Your task to perform on an android device: empty trash in the gmail app Image 0: 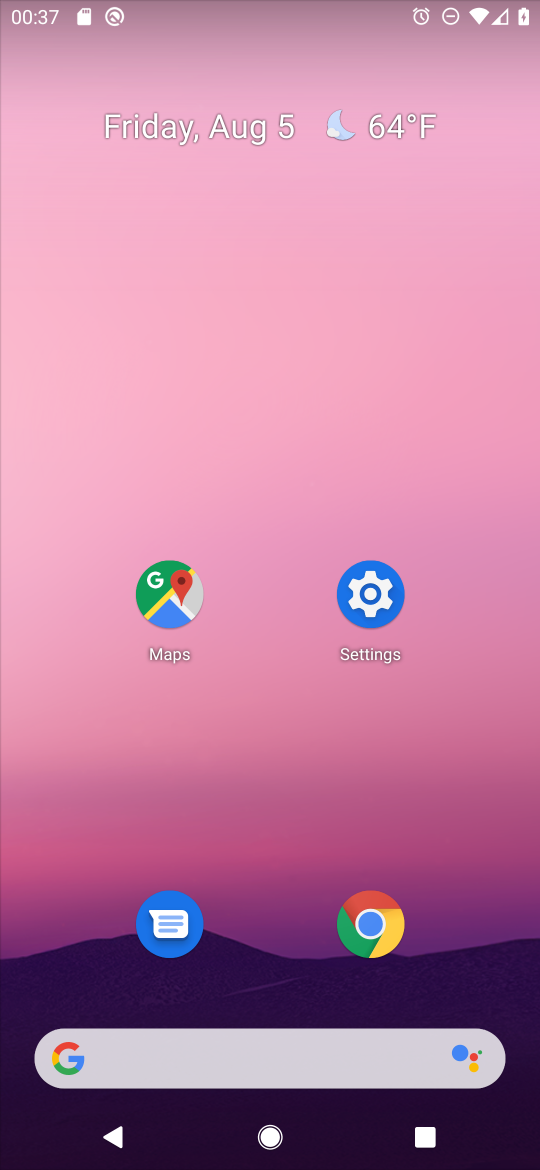
Step 0: press home button
Your task to perform on an android device: empty trash in the gmail app Image 1: 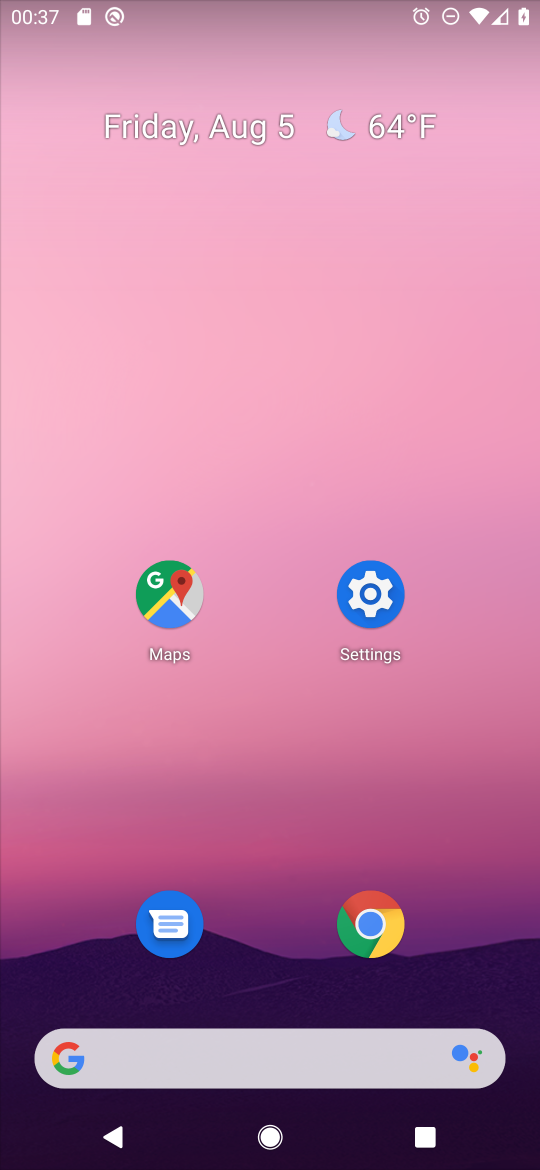
Step 1: drag from (349, 958) to (506, 45)
Your task to perform on an android device: empty trash in the gmail app Image 2: 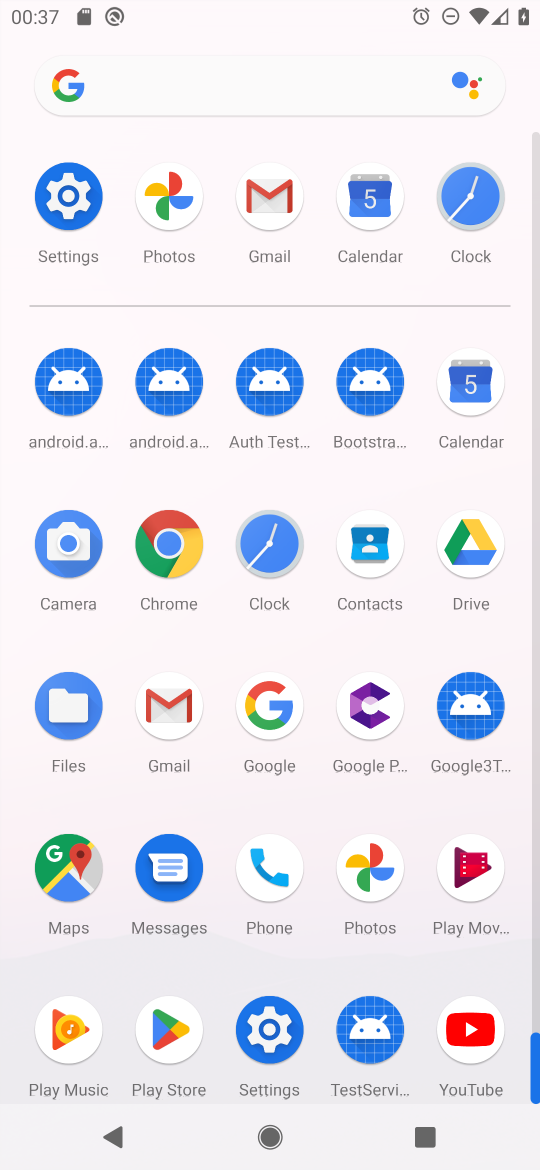
Step 2: click (172, 716)
Your task to perform on an android device: empty trash in the gmail app Image 3: 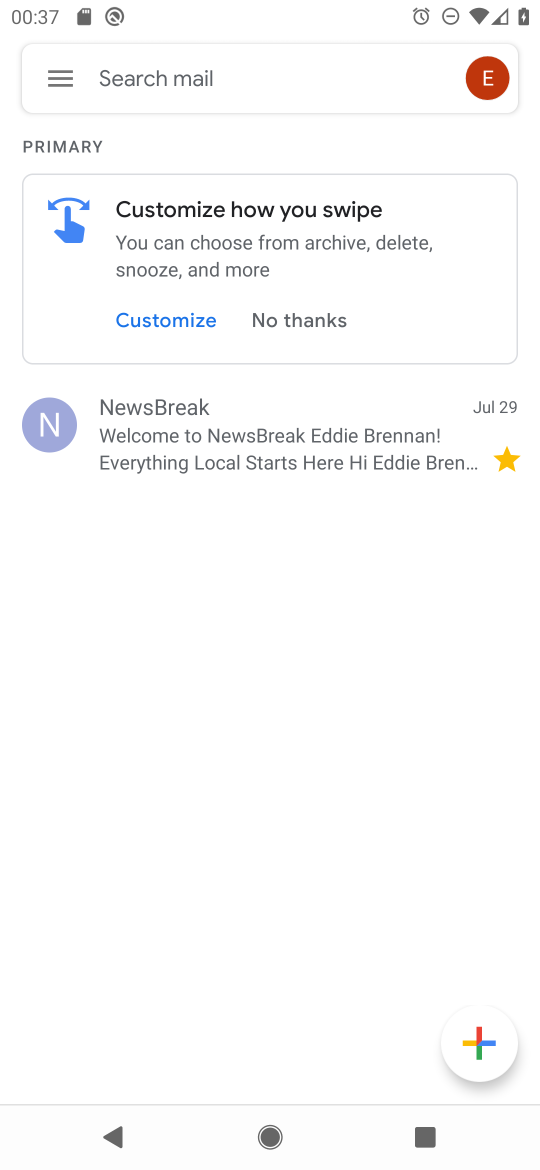
Step 3: click (65, 68)
Your task to perform on an android device: empty trash in the gmail app Image 4: 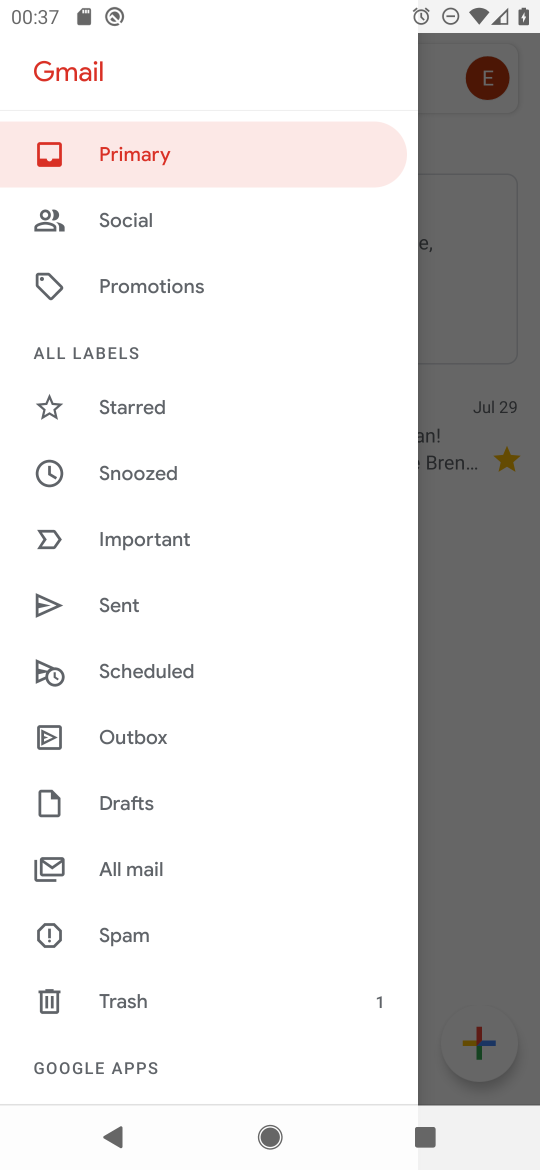
Step 4: click (120, 1004)
Your task to perform on an android device: empty trash in the gmail app Image 5: 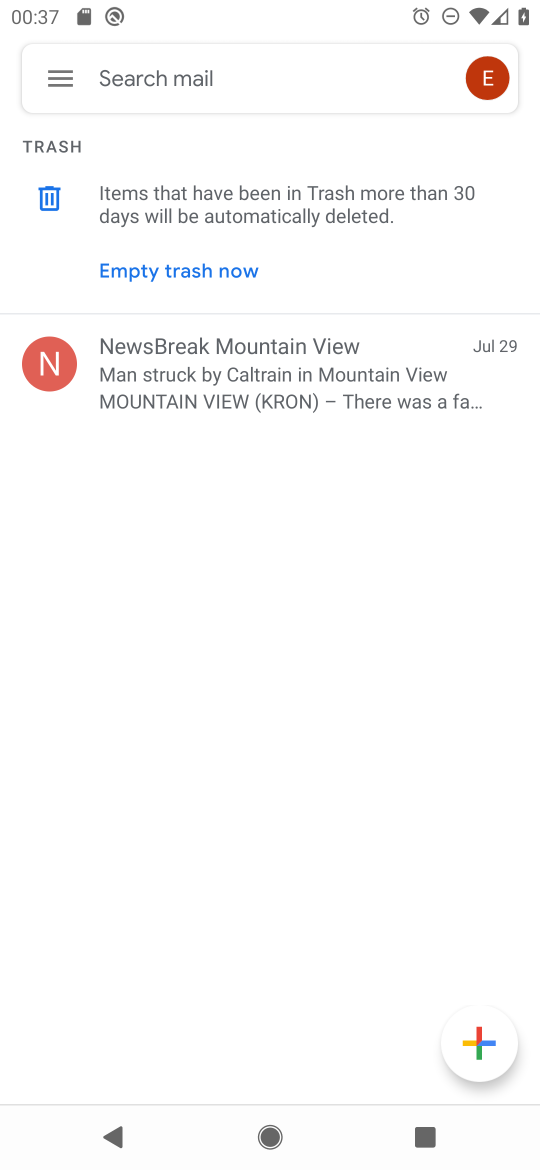
Step 5: click (169, 271)
Your task to perform on an android device: empty trash in the gmail app Image 6: 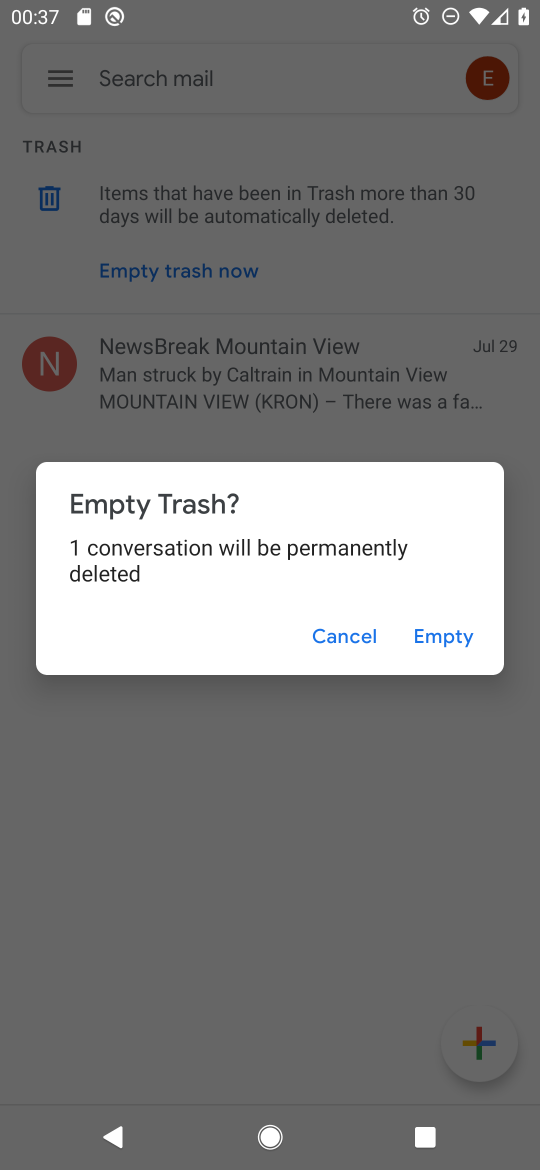
Step 6: click (441, 634)
Your task to perform on an android device: empty trash in the gmail app Image 7: 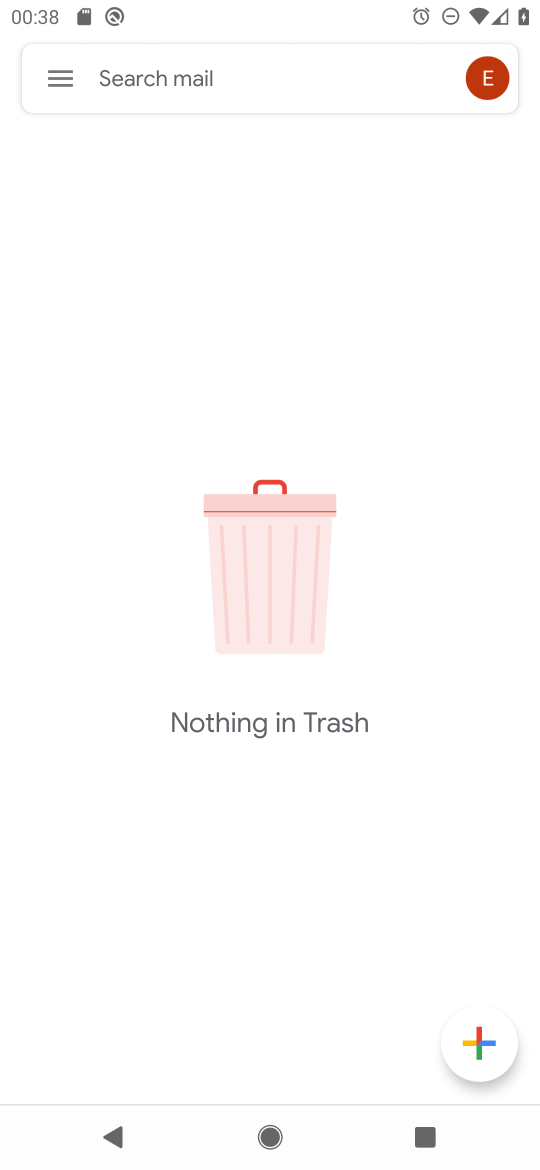
Step 7: task complete